Your task to perform on an android device: Do I have any events tomorrow? Image 0: 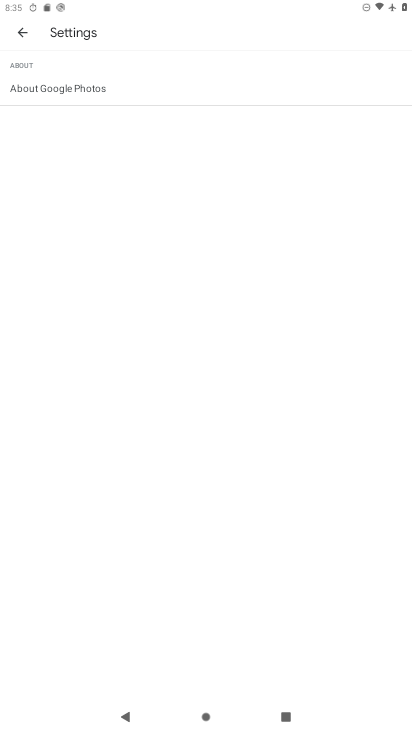
Step 0: press home button
Your task to perform on an android device: Do I have any events tomorrow? Image 1: 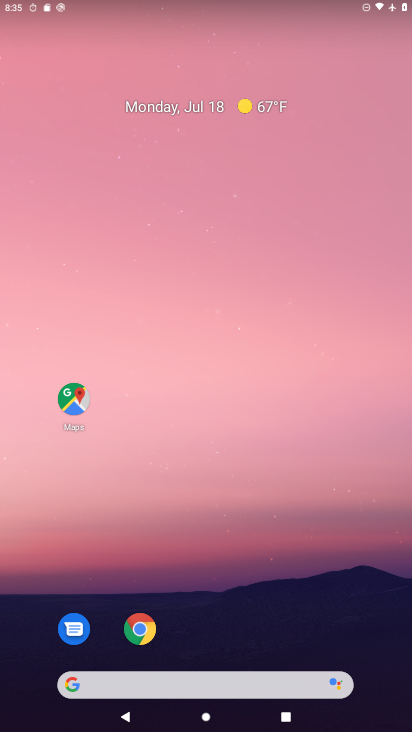
Step 1: drag from (197, 656) to (380, 316)
Your task to perform on an android device: Do I have any events tomorrow? Image 2: 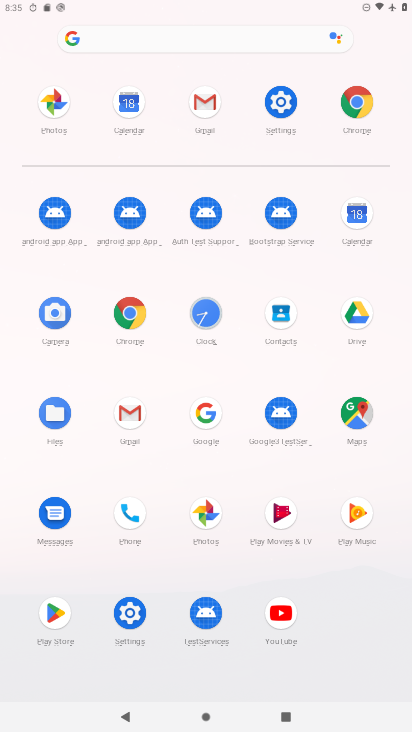
Step 2: click (349, 221)
Your task to perform on an android device: Do I have any events tomorrow? Image 3: 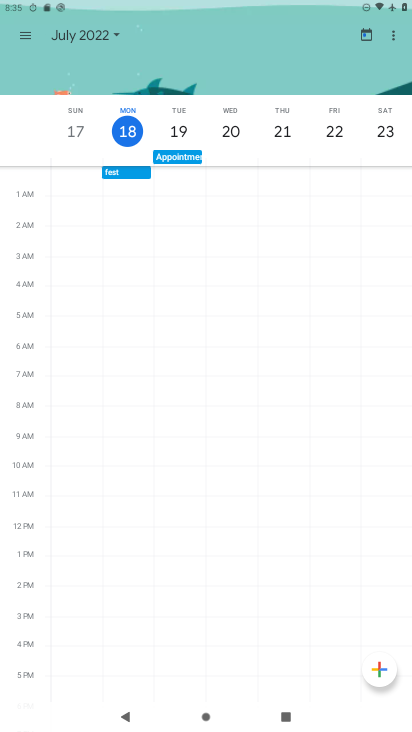
Step 3: click (174, 125)
Your task to perform on an android device: Do I have any events tomorrow? Image 4: 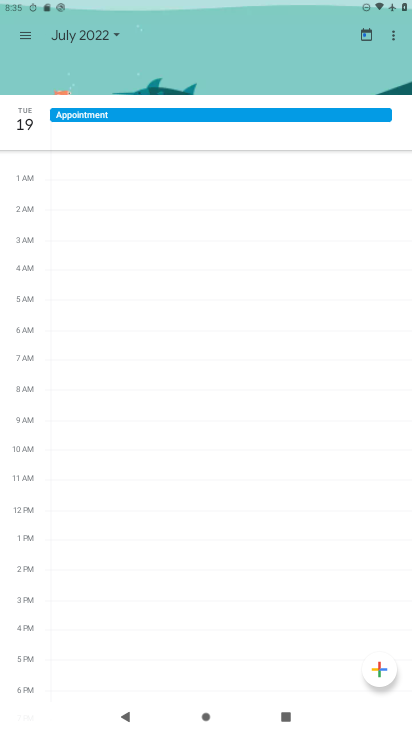
Step 4: task complete